Your task to perform on an android device: Add "macbook air" to the cart on newegg, then select checkout. Image 0: 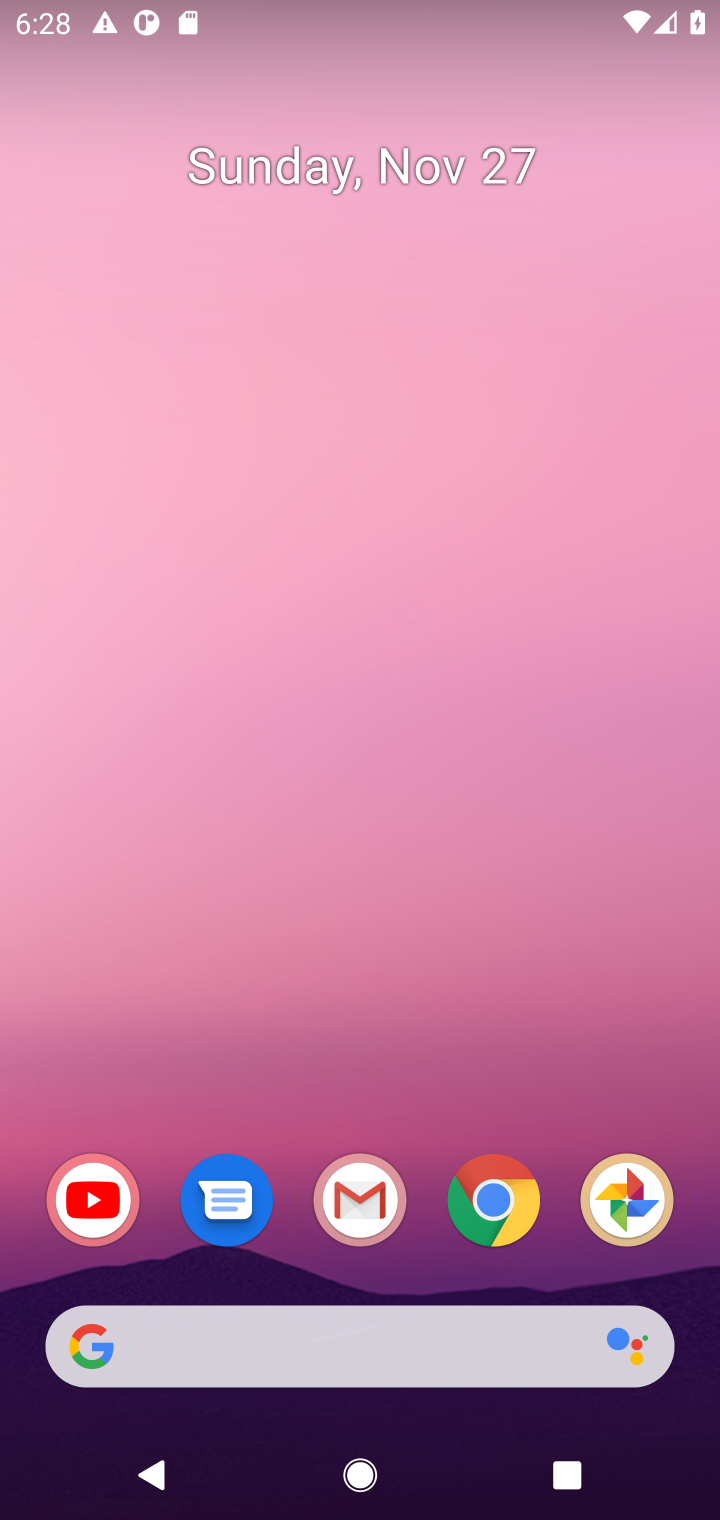
Step 0: click (501, 1190)
Your task to perform on an android device: Add "macbook air" to the cart on newegg, then select checkout. Image 1: 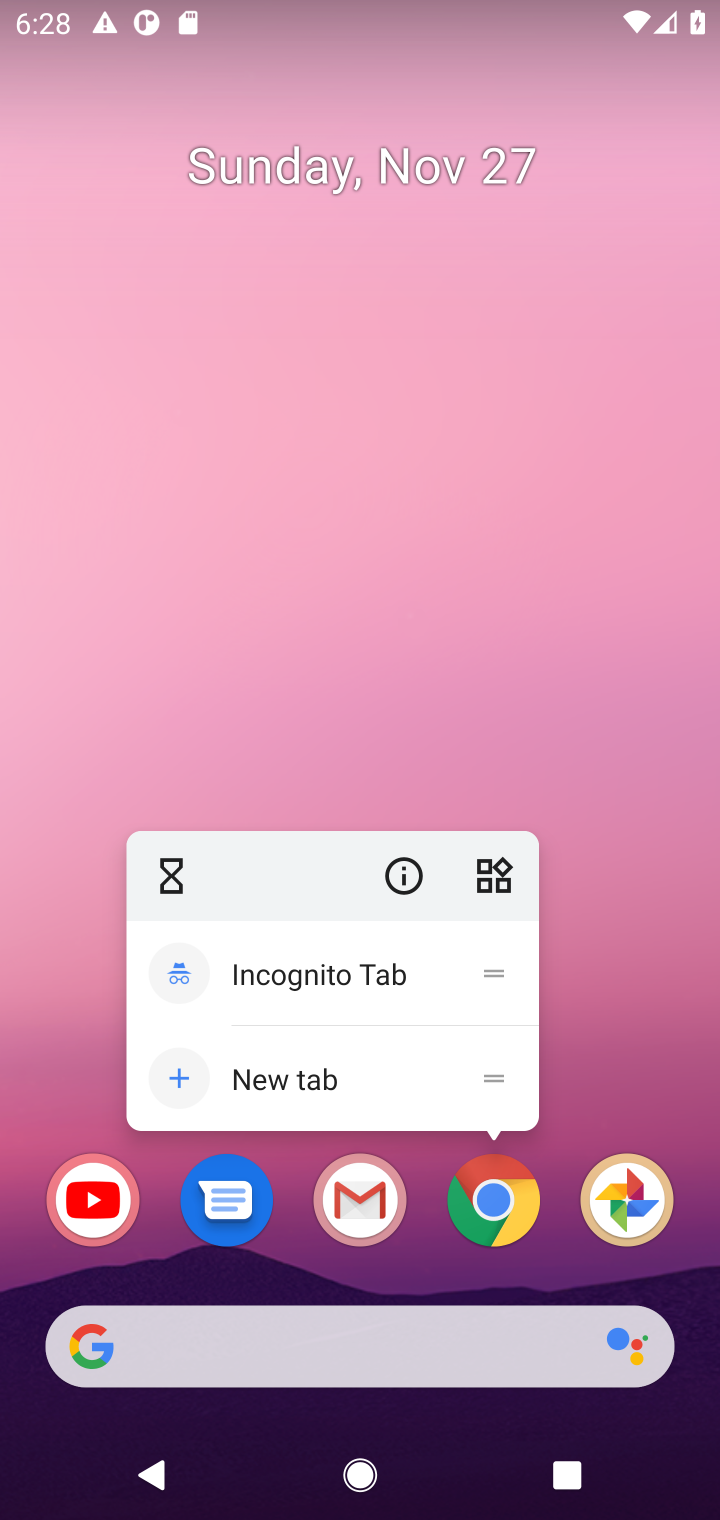
Step 1: click (501, 1190)
Your task to perform on an android device: Add "macbook air" to the cart on newegg, then select checkout. Image 2: 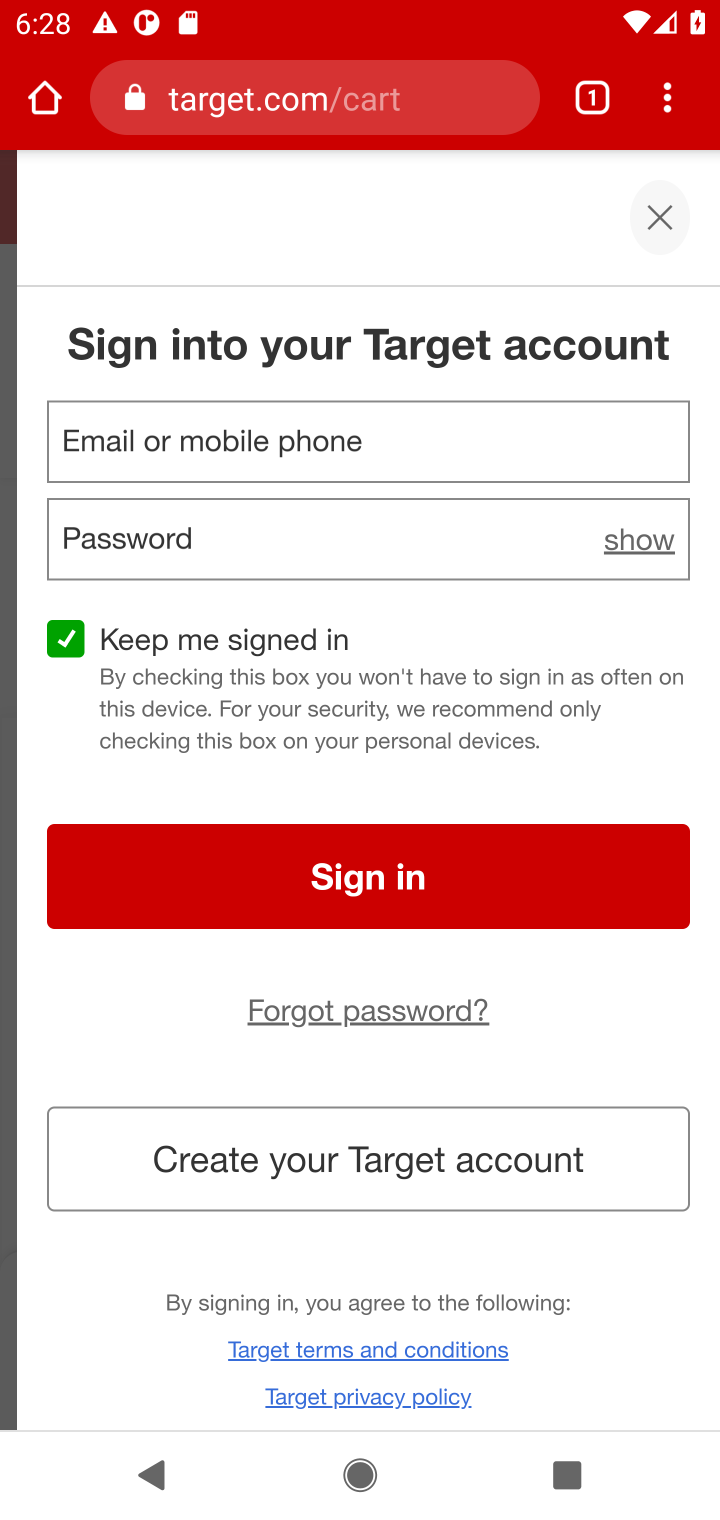
Step 2: click (285, 105)
Your task to perform on an android device: Add "macbook air" to the cart on newegg, then select checkout. Image 3: 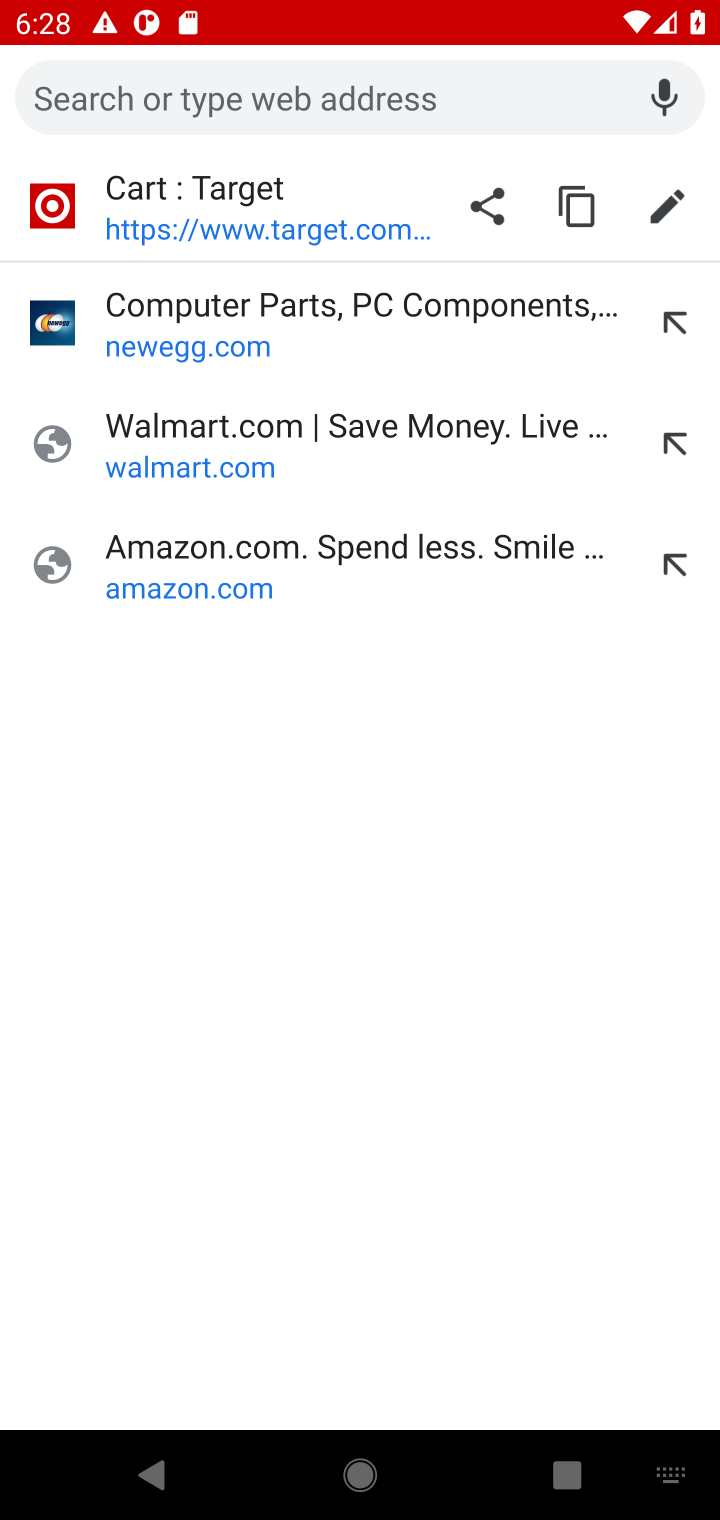
Step 3: type "newegg.com"
Your task to perform on an android device: Add "macbook air" to the cart on newegg, then select checkout. Image 4: 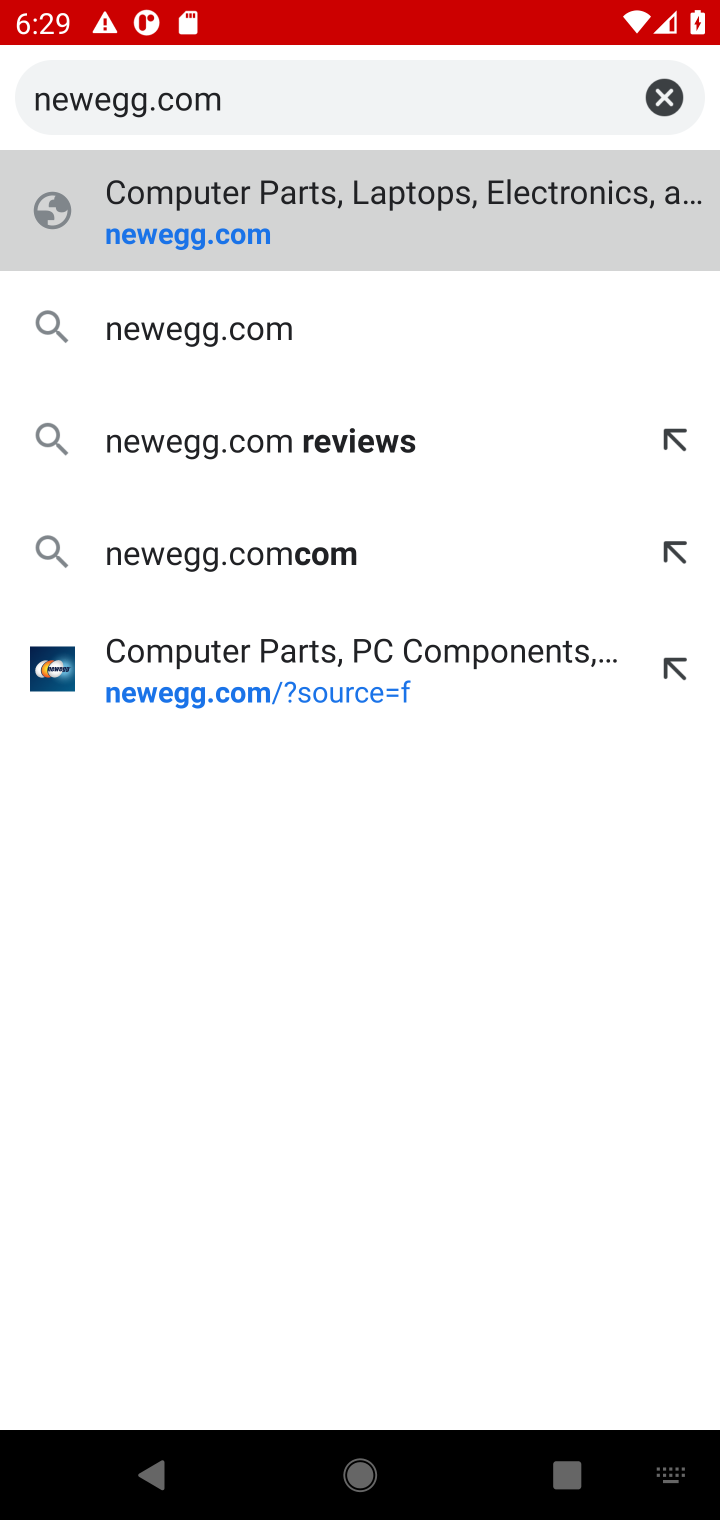
Step 4: click (174, 241)
Your task to perform on an android device: Add "macbook air" to the cart on newegg, then select checkout. Image 5: 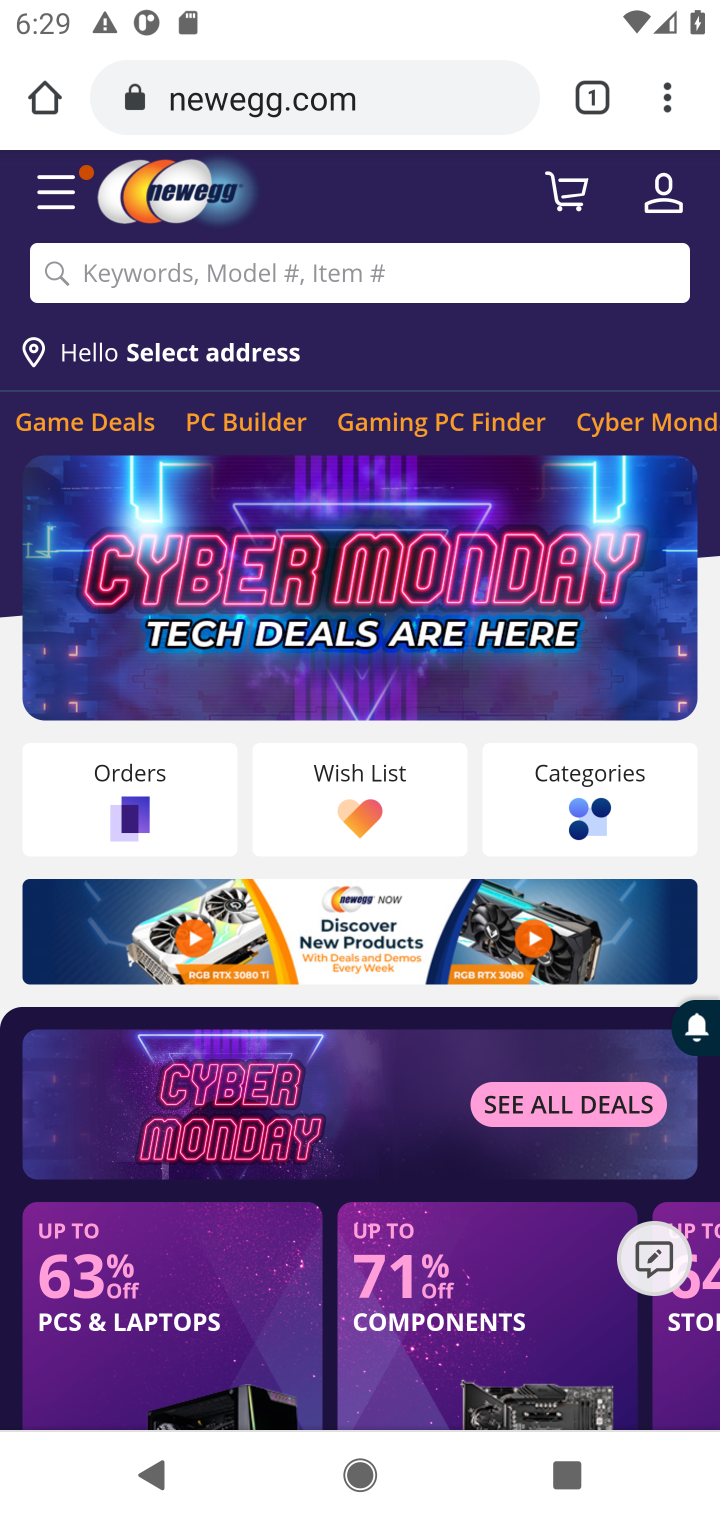
Step 5: click (109, 267)
Your task to perform on an android device: Add "macbook air" to the cart on newegg, then select checkout. Image 6: 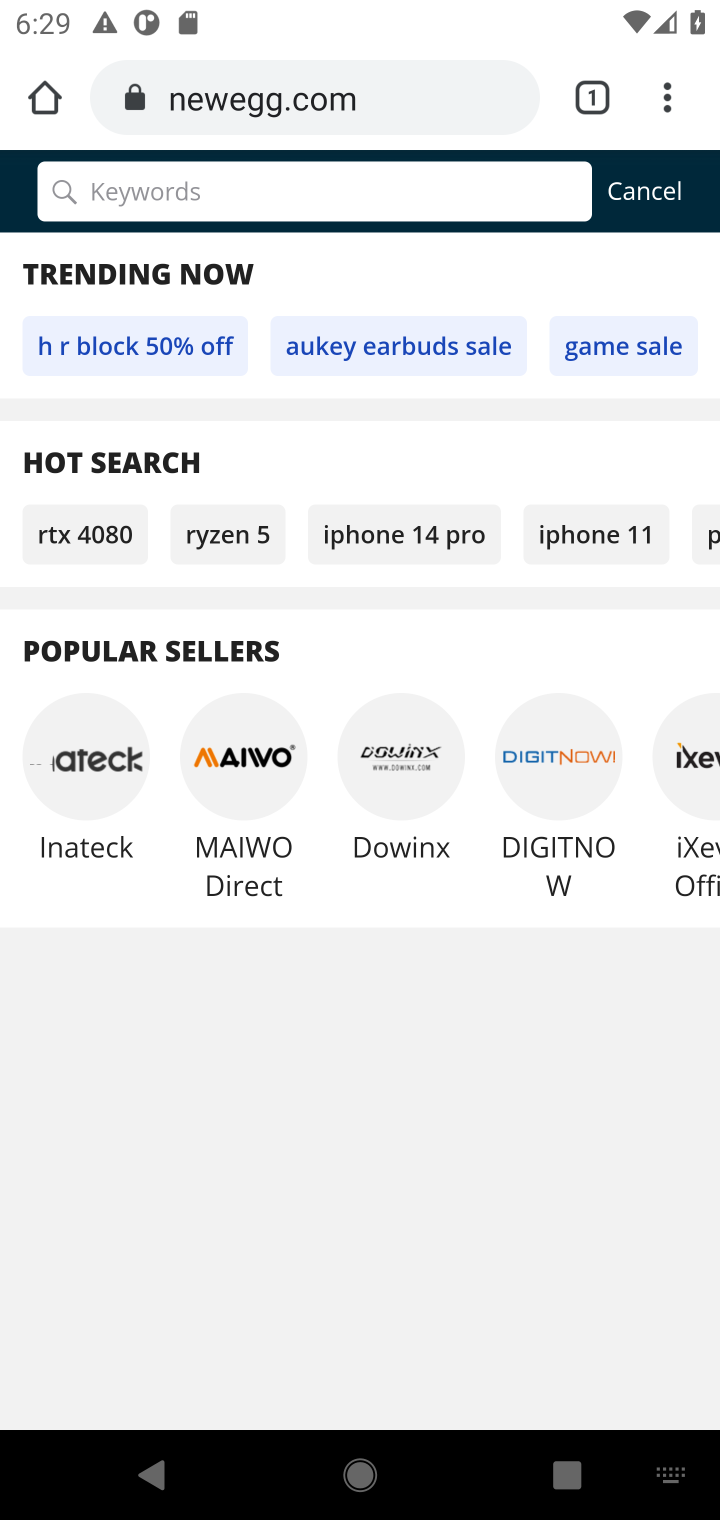
Step 6: type "macbook air"
Your task to perform on an android device: Add "macbook air" to the cart on newegg, then select checkout. Image 7: 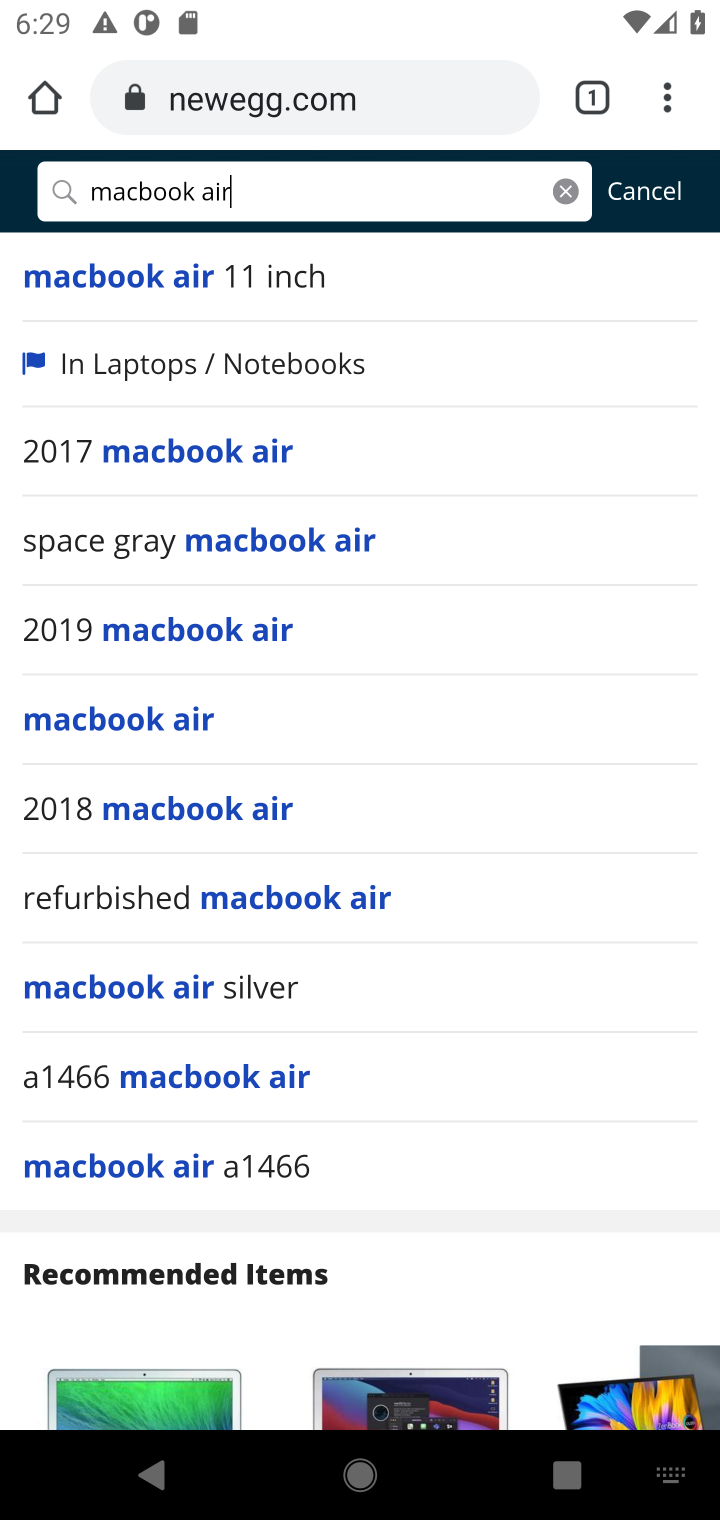
Step 7: click (145, 729)
Your task to perform on an android device: Add "macbook air" to the cart on newegg, then select checkout. Image 8: 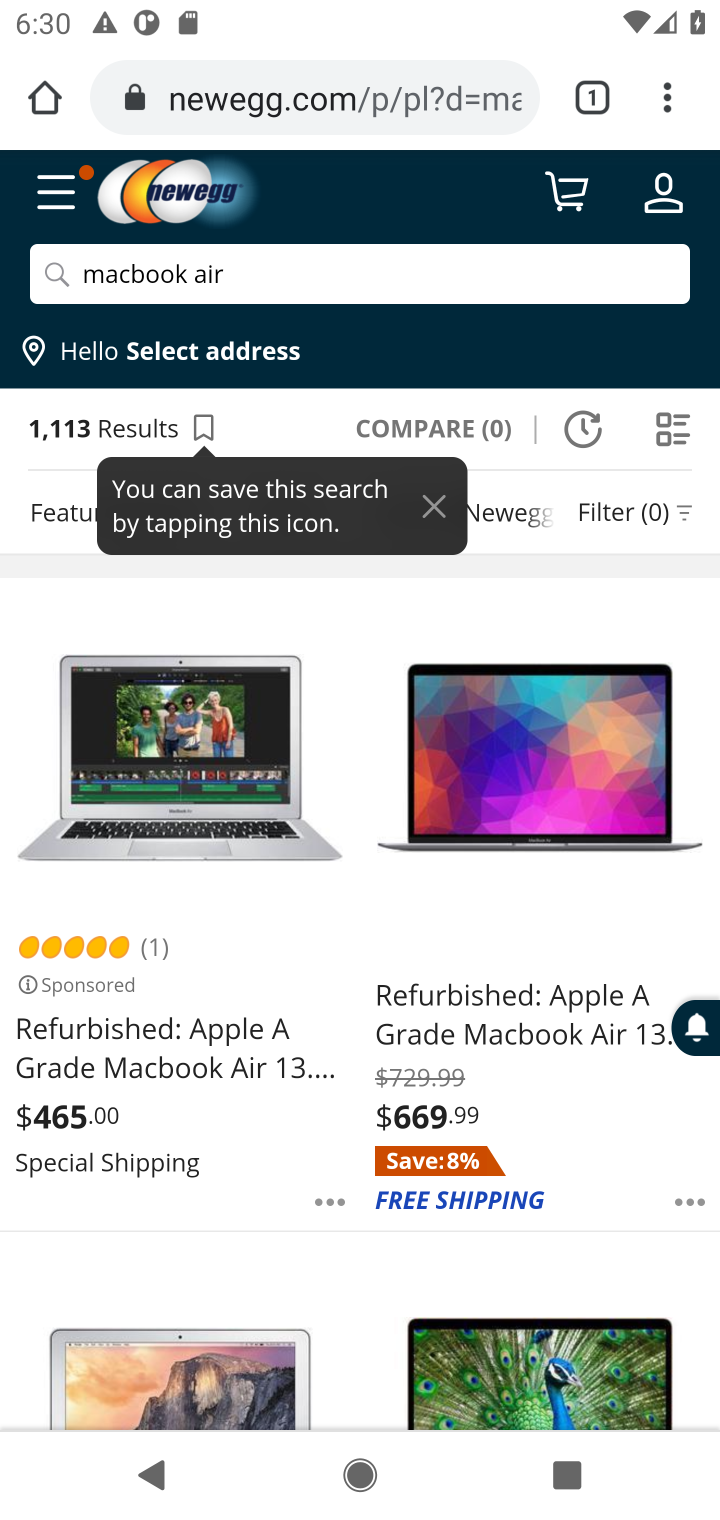
Step 8: click (124, 863)
Your task to perform on an android device: Add "macbook air" to the cart on newegg, then select checkout. Image 9: 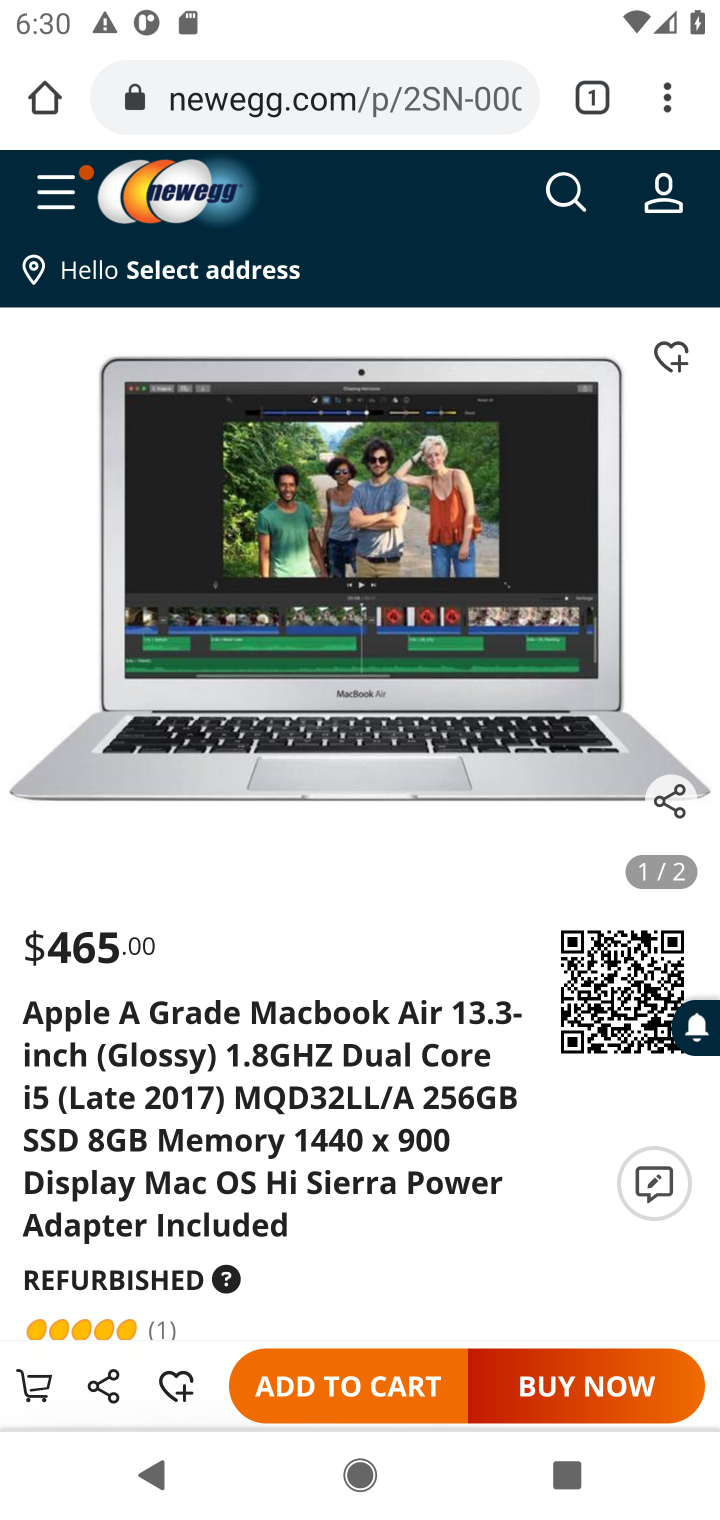
Step 9: click (350, 1383)
Your task to perform on an android device: Add "macbook air" to the cart on newegg, then select checkout. Image 10: 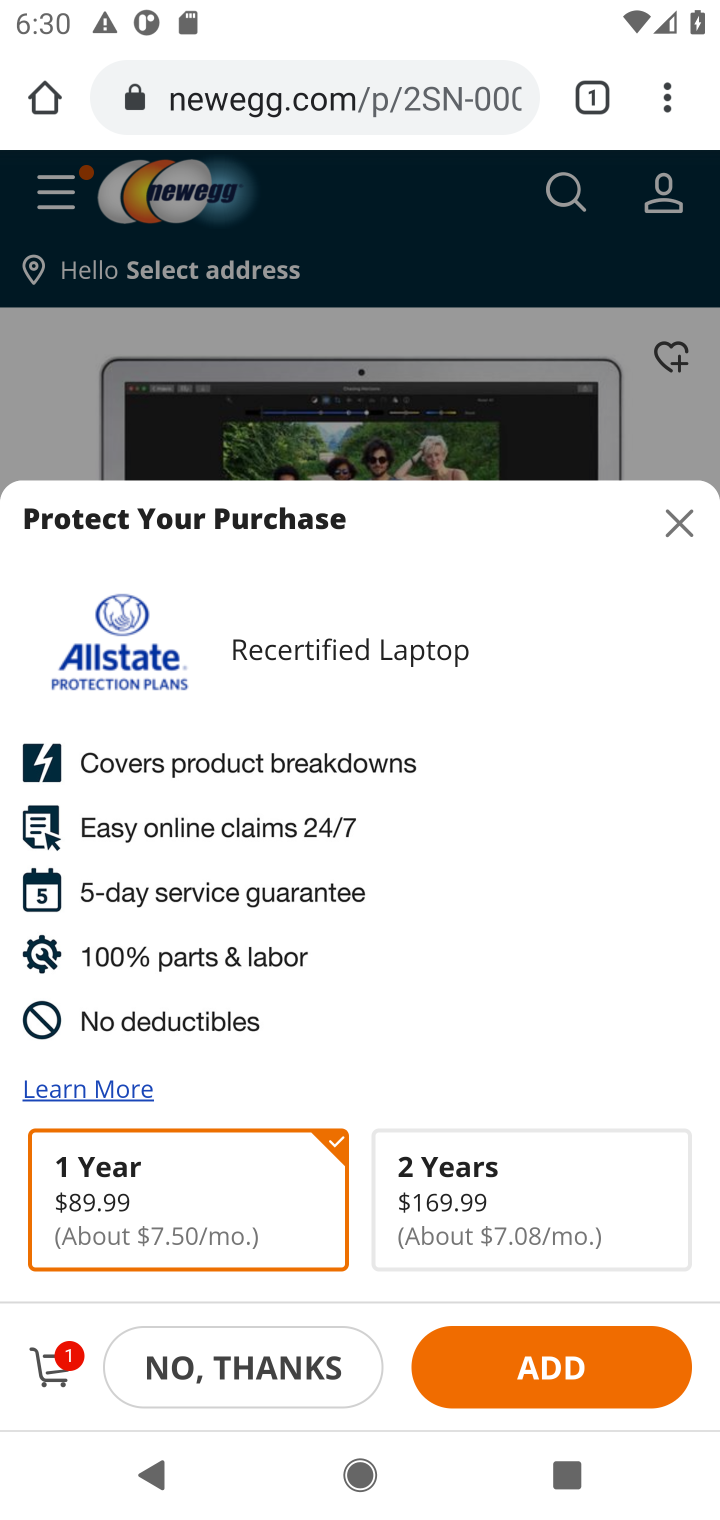
Step 10: click (46, 1358)
Your task to perform on an android device: Add "macbook air" to the cart on newegg, then select checkout. Image 11: 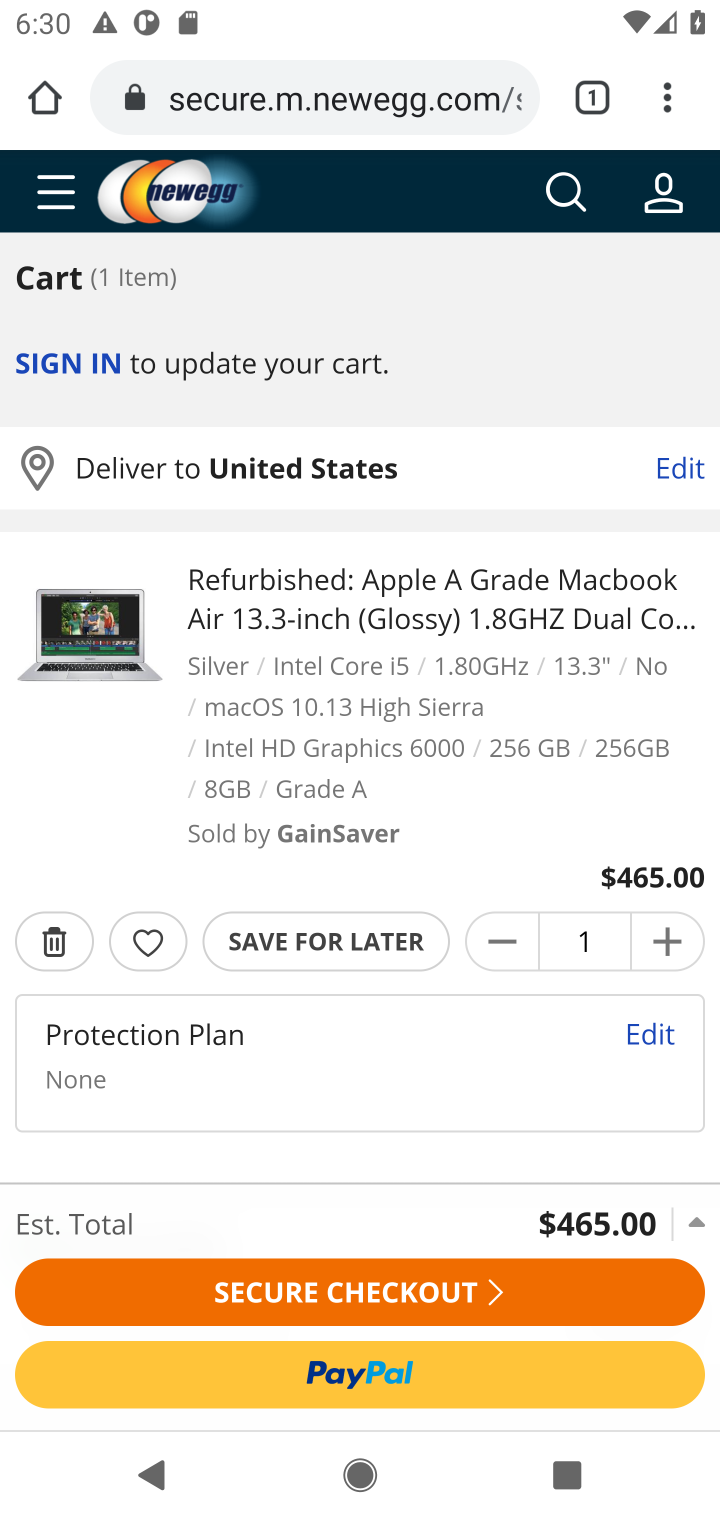
Step 11: click (317, 1356)
Your task to perform on an android device: Add "macbook air" to the cart on newegg, then select checkout. Image 12: 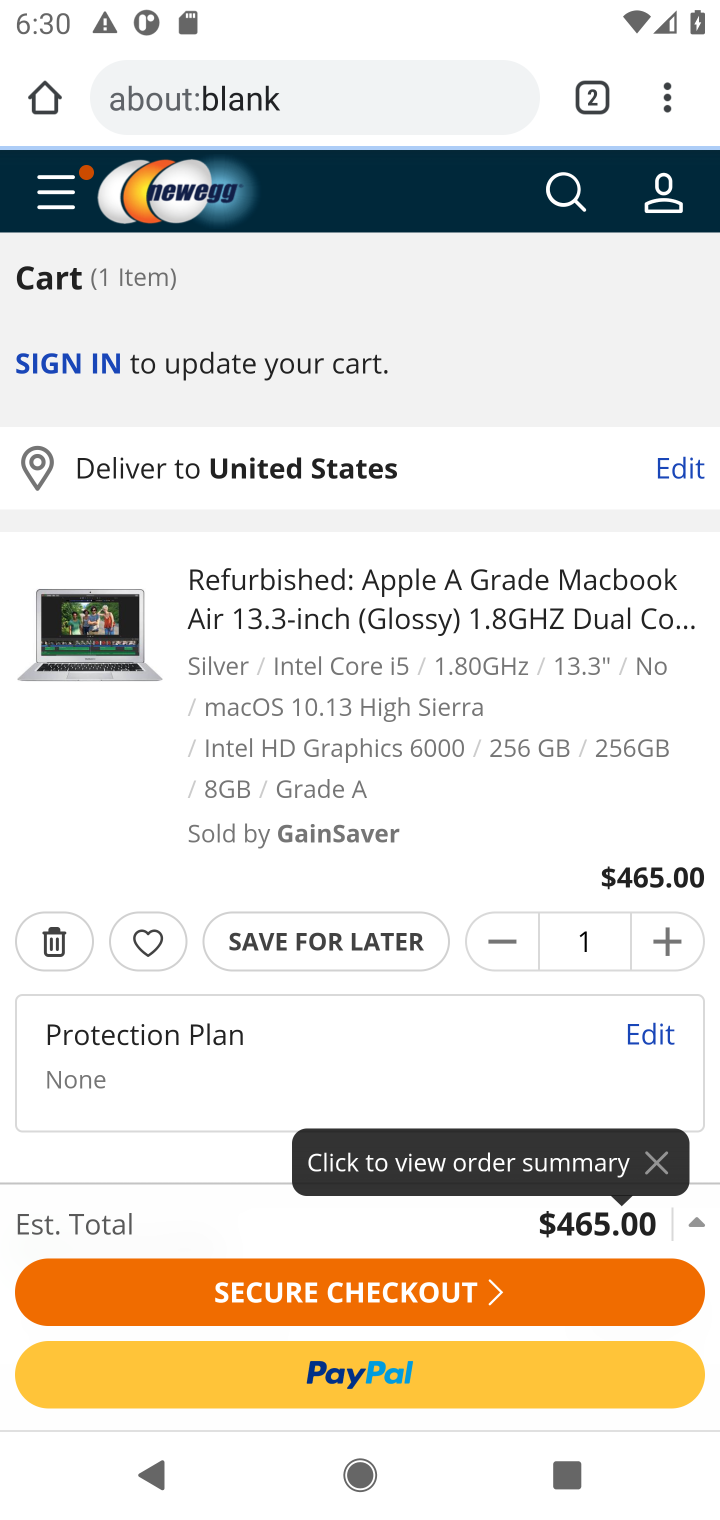
Step 12: click (341, 1301)
Your task to perform on an android device: Add "macbook air" to the cart on newegg, then select checkout. Image 13: 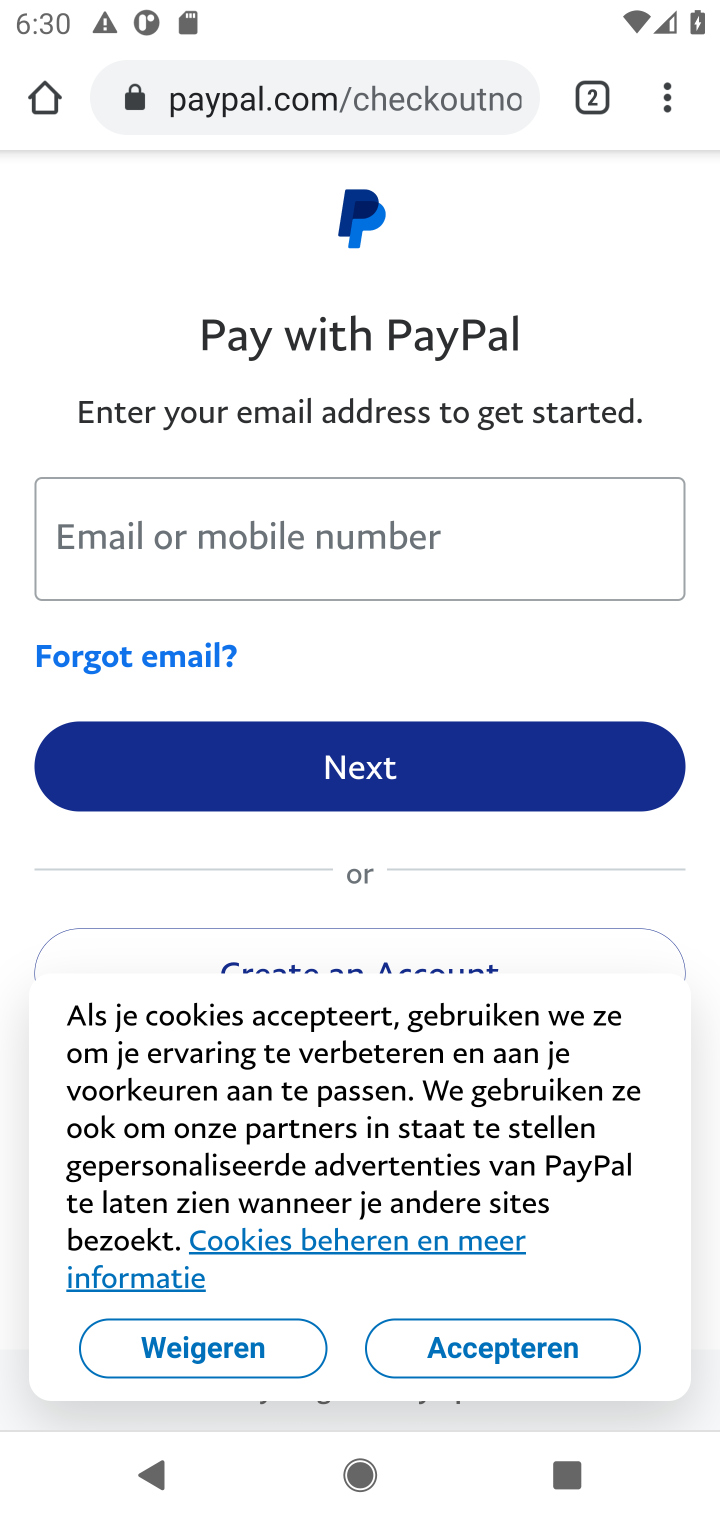
Step 13: task complete